Your task to perform on an android device: Open calendar and show me the second week of next month Image 0: 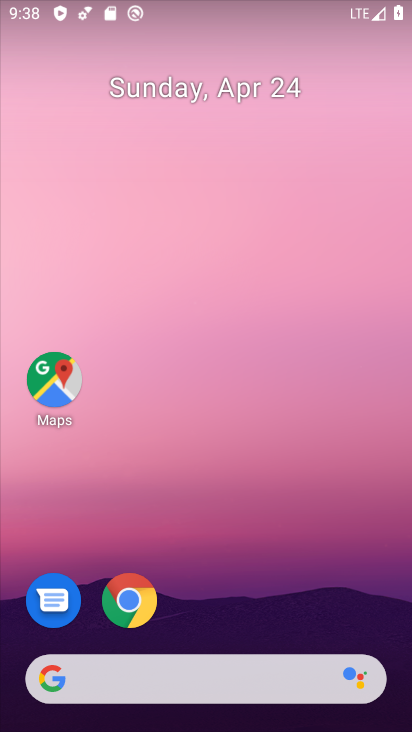
Step 0: drag from (191, 589) to (265, 4)
Your task to perform on an android device: Open calendar and show me the second week of next month Image 1: 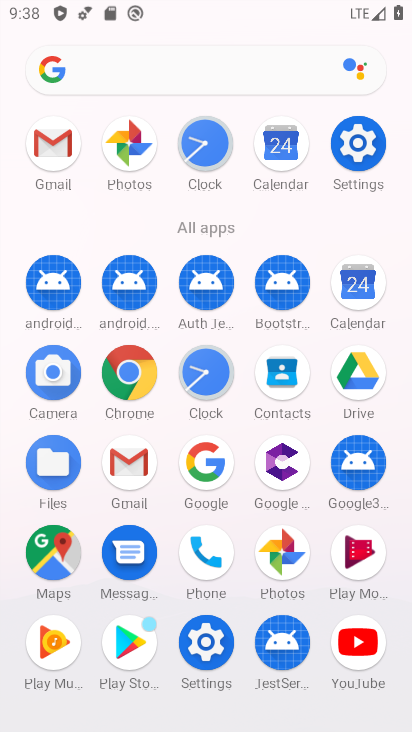
Step 1: click (369, 288)
Your task to perform on an android device: Open calendar and show me the second week of next month Image 2: 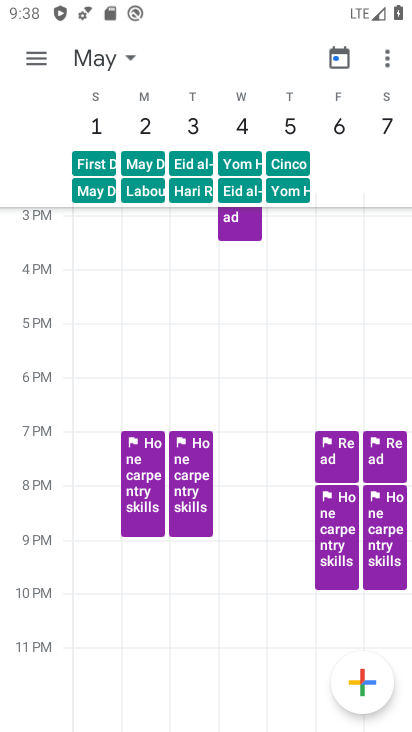
Step 2: task complete